Your task to perform on an android device: empty trash in the gmail app Image 0: 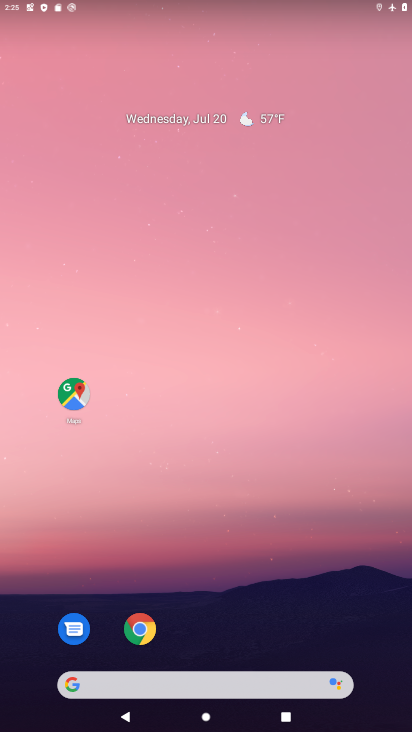
Step 0: drag from (191, 638) to (206, 152)
Your task to perform on an android device: empty trash in the gmail app Image 1: 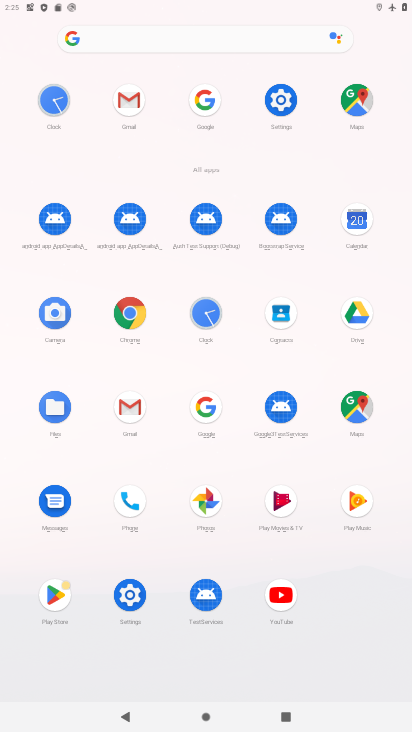
Step 1: click (129, 104)
Your task to perform on an android device: empty trash in the gmail app Image 2: 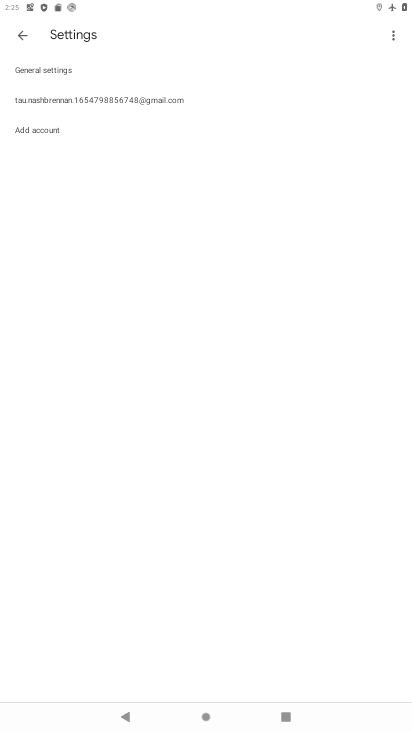
Step 2: click (20, 34)
Your task to perform on an android device: empty trash in the gmail app Image 3: 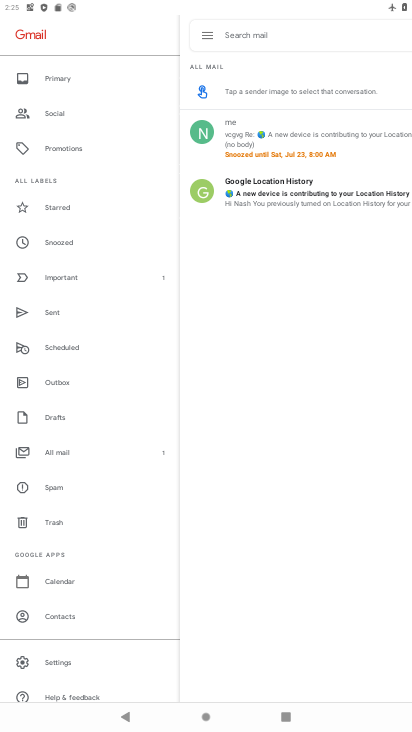
Step 3: click (77, 525)
Your task to perform on an android device: empty trash in the gmail app Image 4: 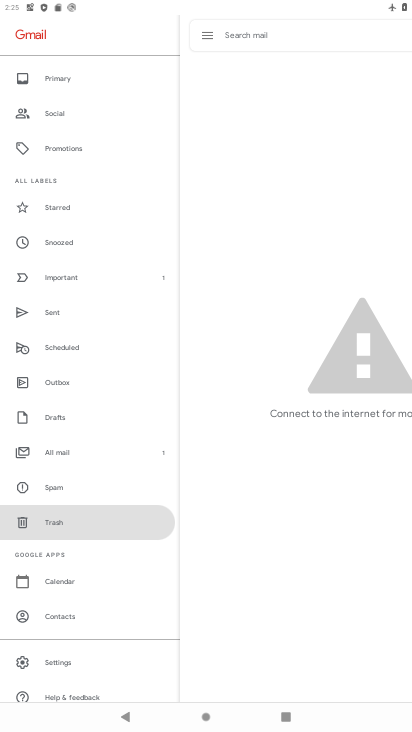
Step 4: task complete